Your task to perform on an android device: open a bookmark in the chrome app Image 0: 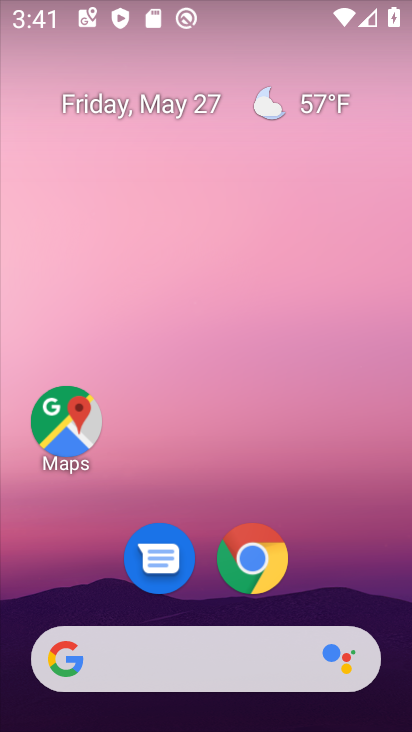
Step 0: drag from (333, 584) to (282, 127)
Your task to perform on an android device: open a bookmark in the chrome app Image 1: 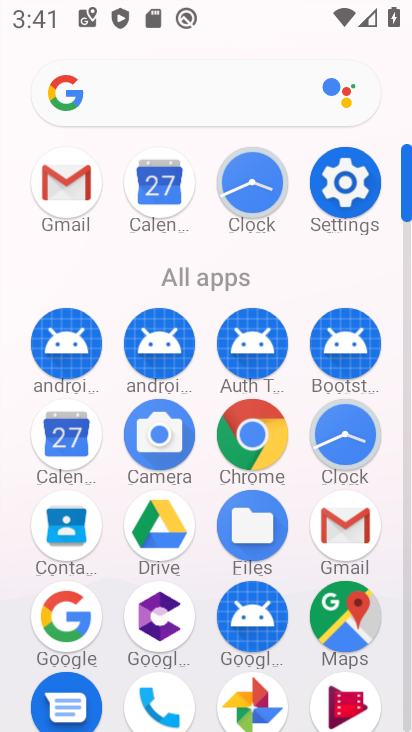
Step 1: click (261, 460)
Your task to perform on an android device: open a bookmark in the chrome app Image 2: 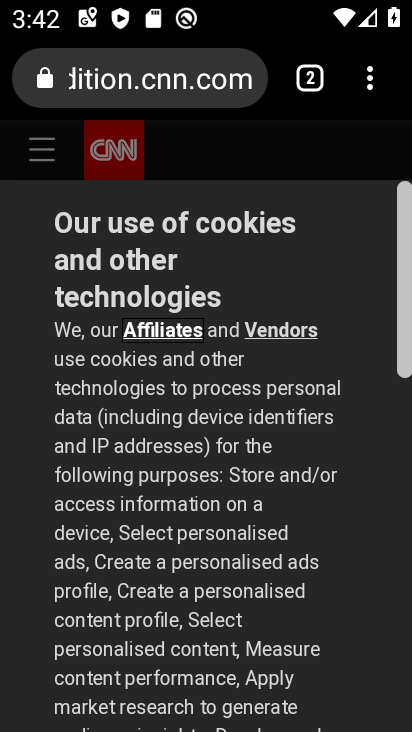
Step 2: click (321, 76)
Your task to perform on an android device: open a bookmark in the chrome app Image 3: 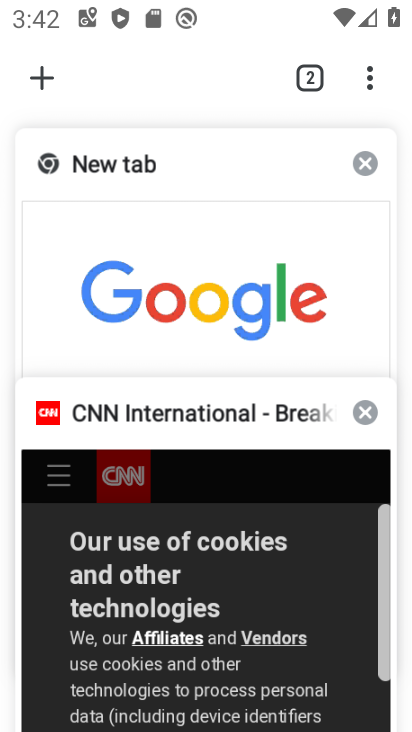
Step 3: click (378, 96)
Your task to perform on an android device: open a bookmark in the chrome app Image 4: 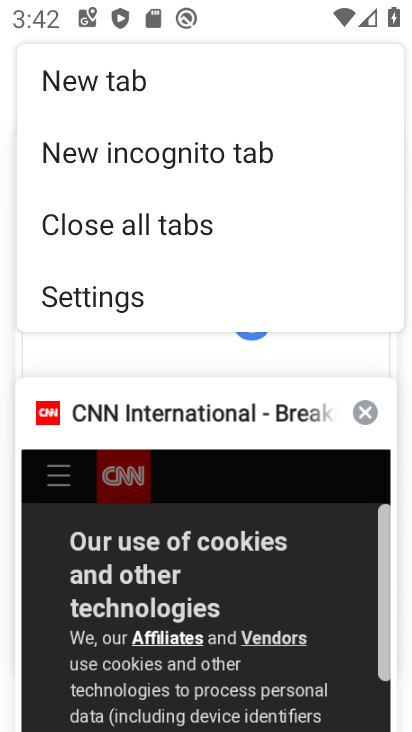
Step 4: click (178, 285)
Your task to perform on an android device: open a bookmark in the chrome app Image 5: 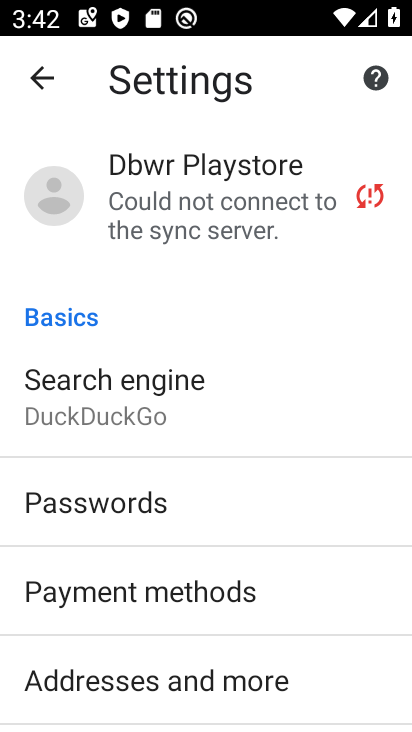
Step 5: task complete